Your task to perform on an android device: visit the assistant section in the google photos Image 0: 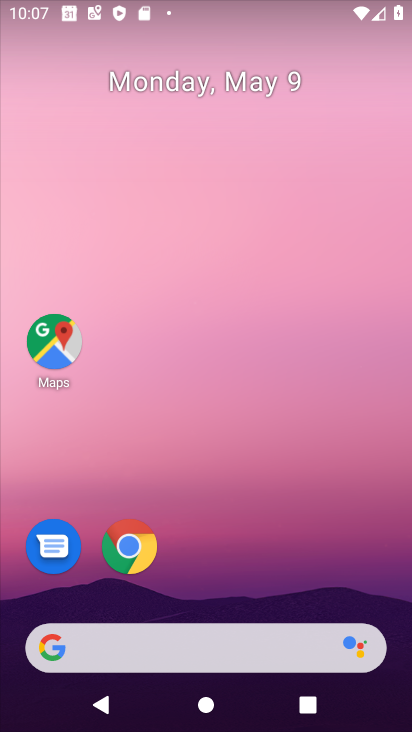
Step 0: drag from (255, 681) to (324, 149)
Your task to perform on an android device: visit the assistant section in the google photos Image 1: 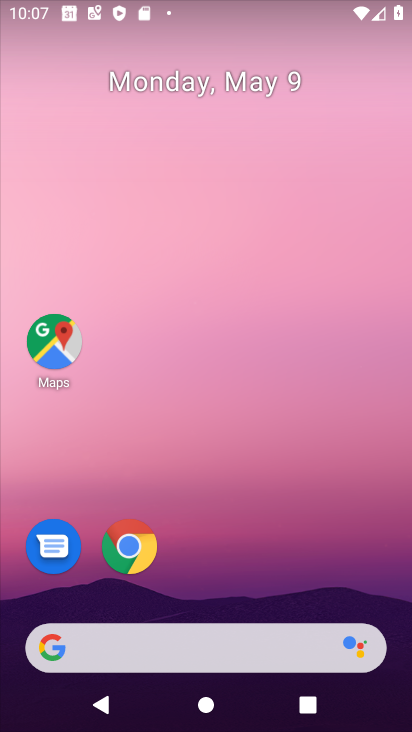
Step 1: drag from (270, 701) to (273, 48)
Your task to perform on an android device: visit the assistant section in the google photos Image 2: 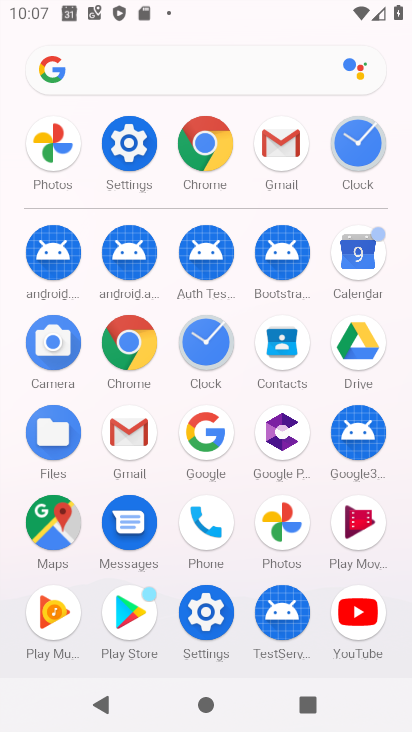
Step 2: click (46, 155)
Your task to perform on an android device: visit the assistant section in the google photos Image 3: 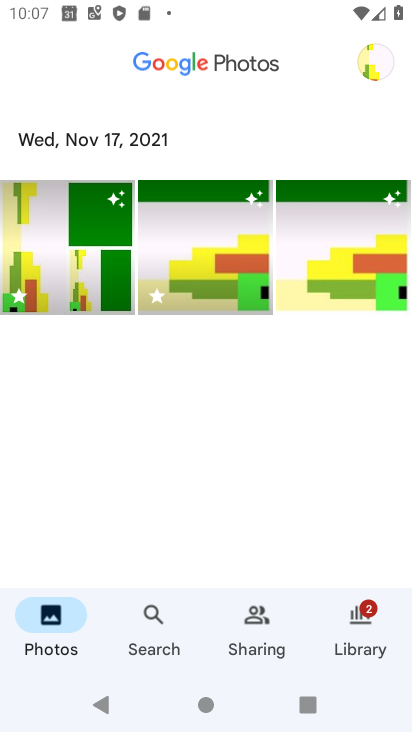
Step 3: click (374, 594)
Your task to perform on an android device: visit the assistant section in the google photos Image 4: 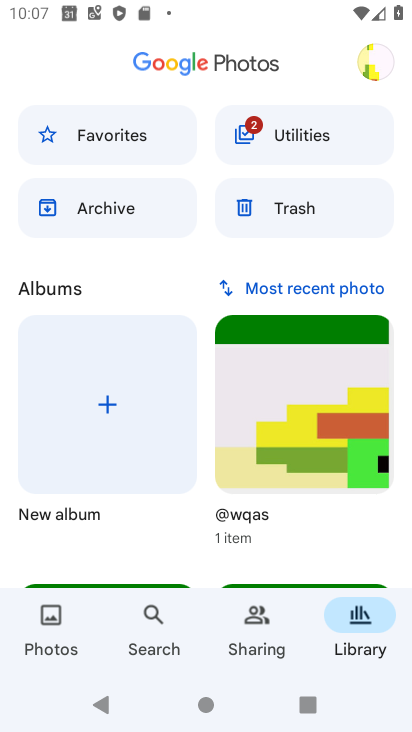
Step 4: task complete